Your task to perform on an android device: Show me popular games on the Play Store Image 0: 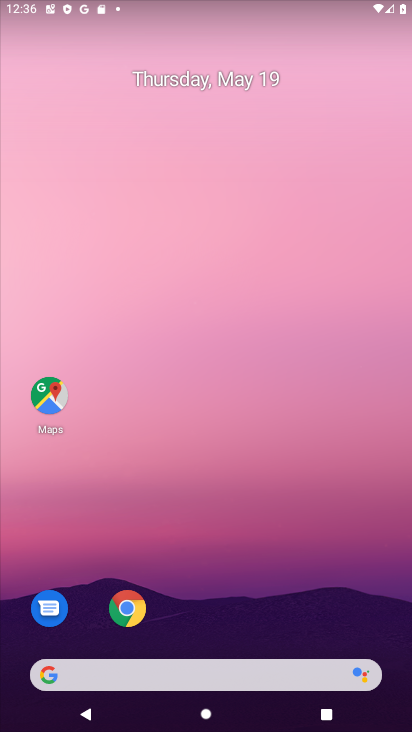
Step 0: drag from (273, 607) to (277, 181)
Your task to perform on an android device: Show me popular games on the Play Store Image 1: 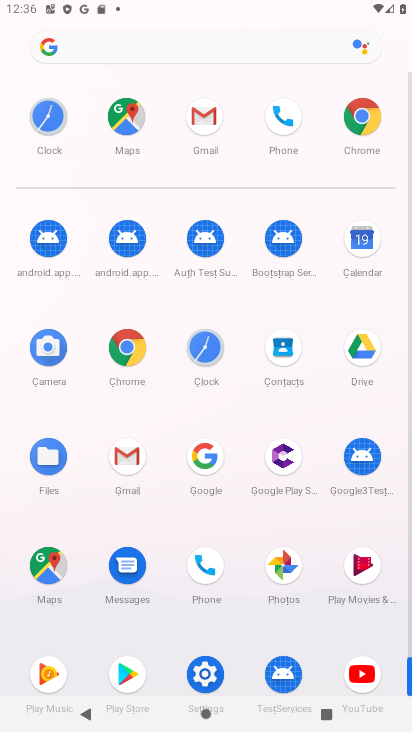
Step 1: drag from (181, 610) to (235, 292)
Your task to perform on an android device: Show me popular games on the Play Store Image 2: 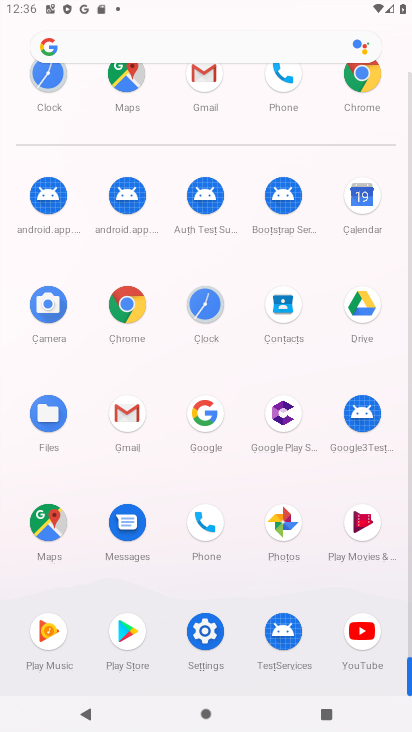
Step 2: click (116, 632)
Your task to perform on an android device: Show me popular games on the Play Store Image 3: 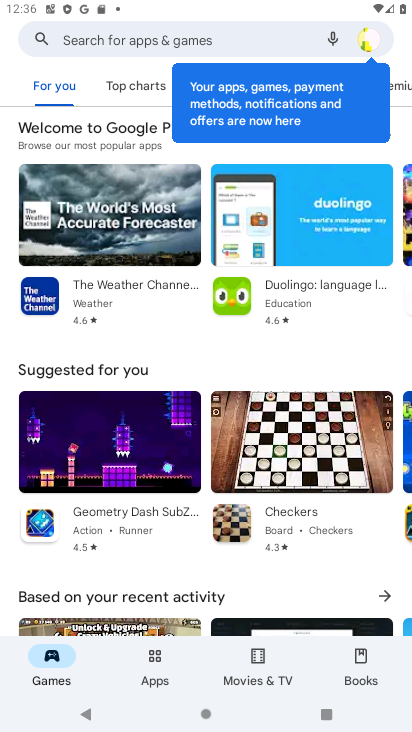
Step 3: task complete